Your task to perform on an android device: What is the recent news? Image 0: 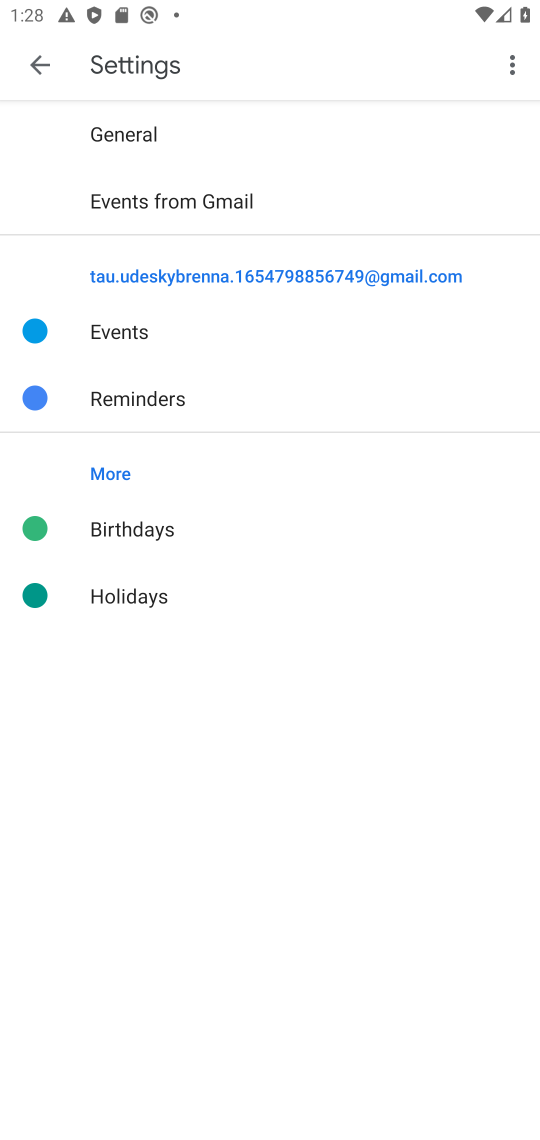
Step 0: press home button
Your task to perform on an android device: What is the recent news? Image 1: 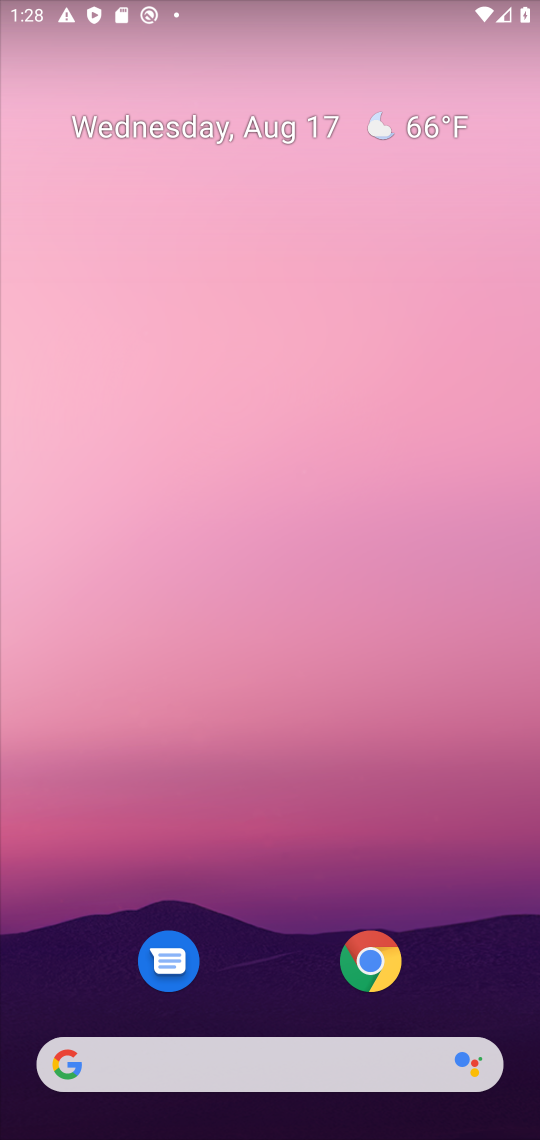
Step 1: drag from (324, 858) to (206, 149)
Your task to perform on an android device: What is the recent news? Image 2: 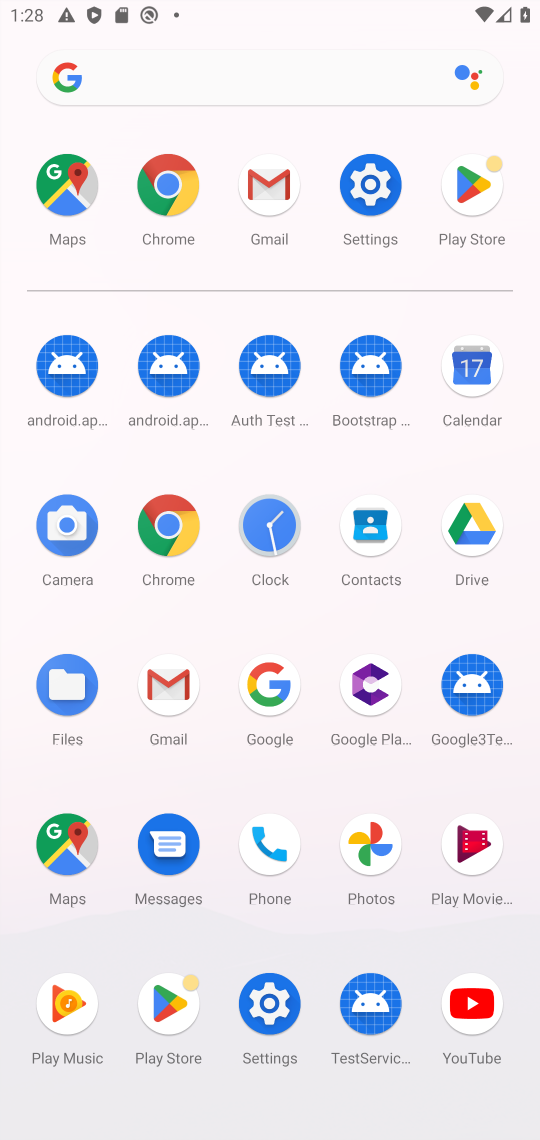
Step 2: click (265, 717)
Your task to perform on an android device: What is the recent news? Image 3: 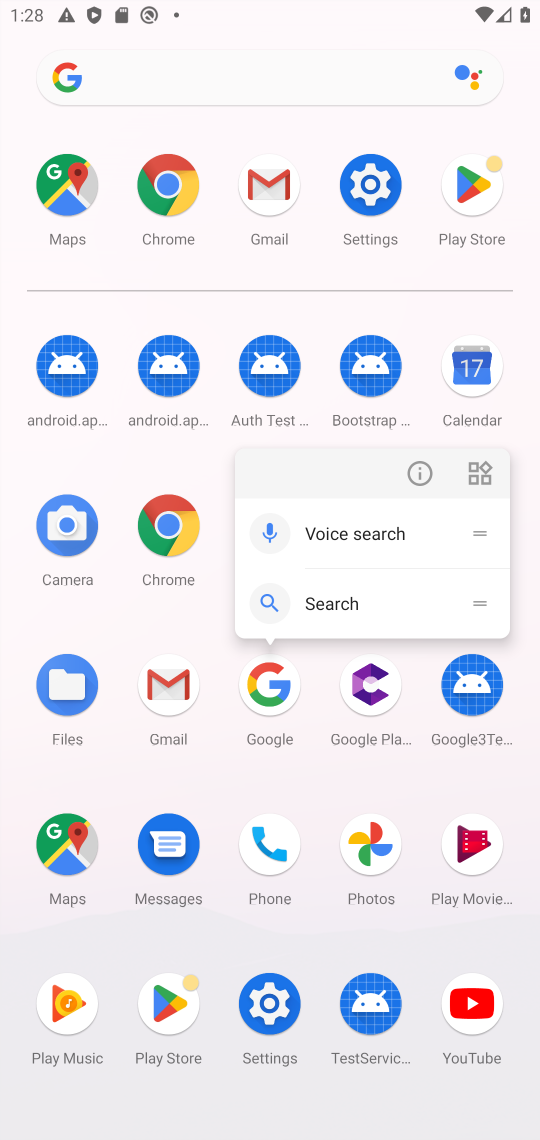
Step 3: click (275, 709)
Your task to perform on an android device: What is the recent news? Image 4: 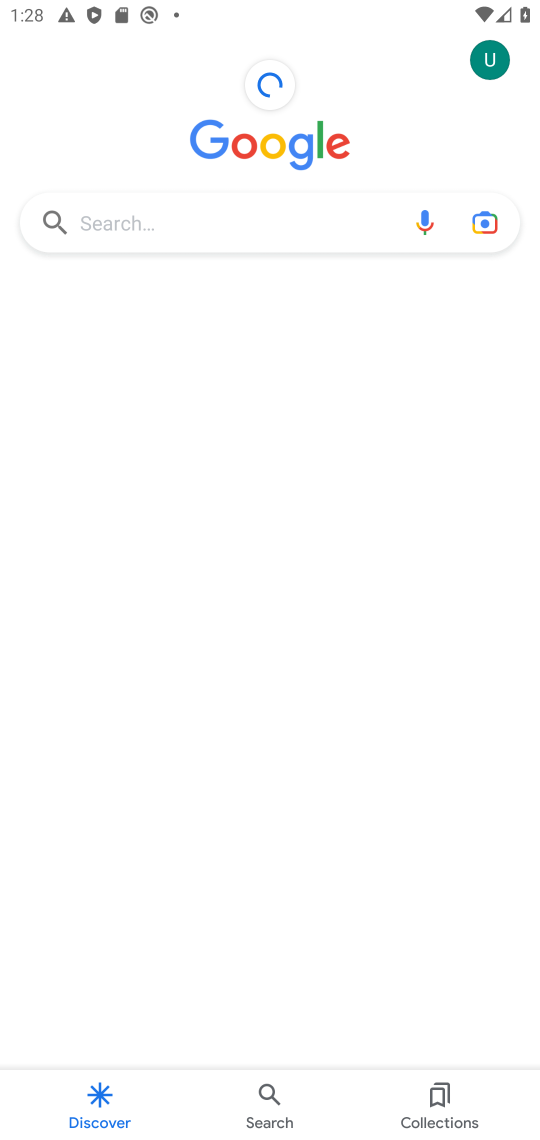
Step 4: click (212, 228)
Your task to perform on an android device: What is the recent news? Image 5: 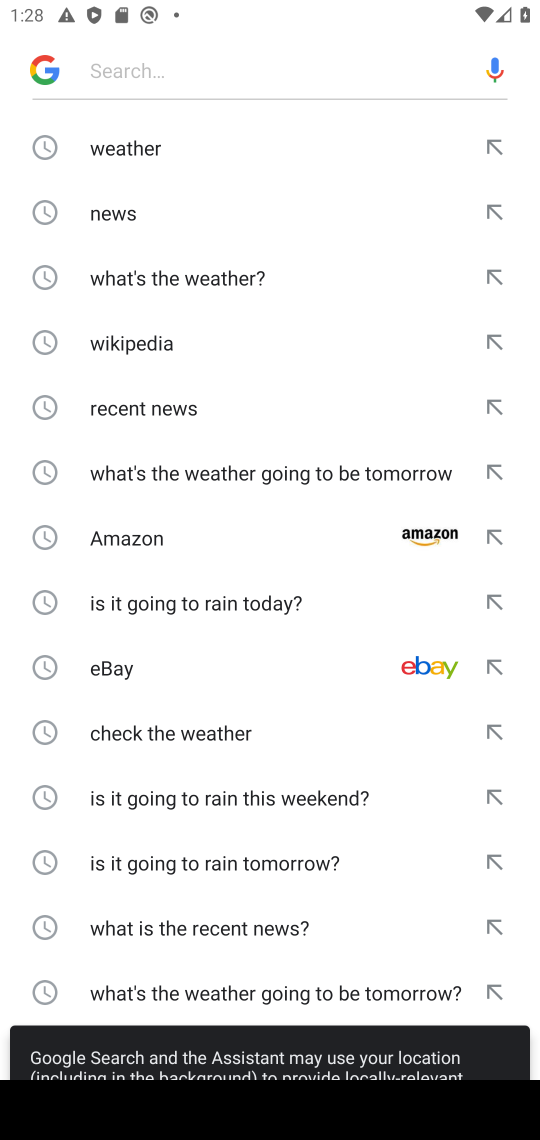
Step 5: click (147, 224)
Your task to perform on an android device: What is the recent news? Image 6: 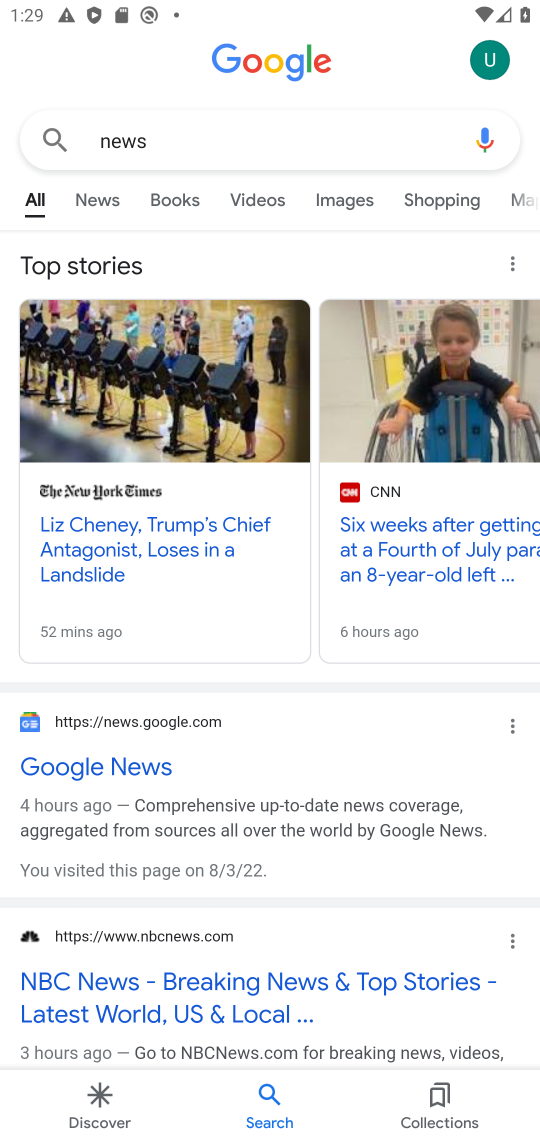
Step 6: task complete